Your task to perform on an android device: Open the calendar app, open the side menu, and click the "Day" option Image 0: 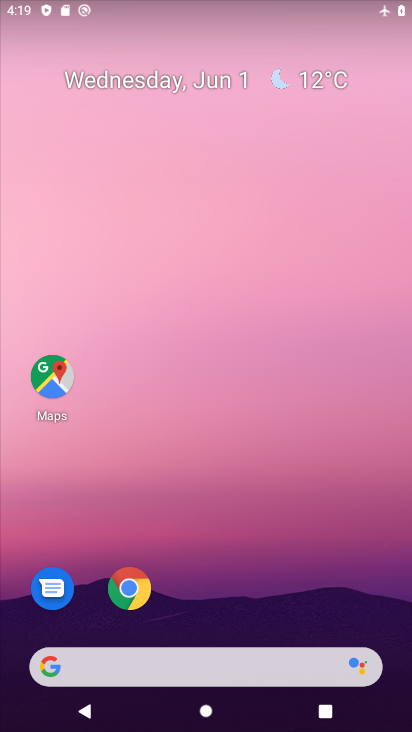
Step 0: drag from (237, 560) to (324, 39)
Your task to perform on an android device: Open the calendar app, open the side menu, and click the "Day" option Image 1: 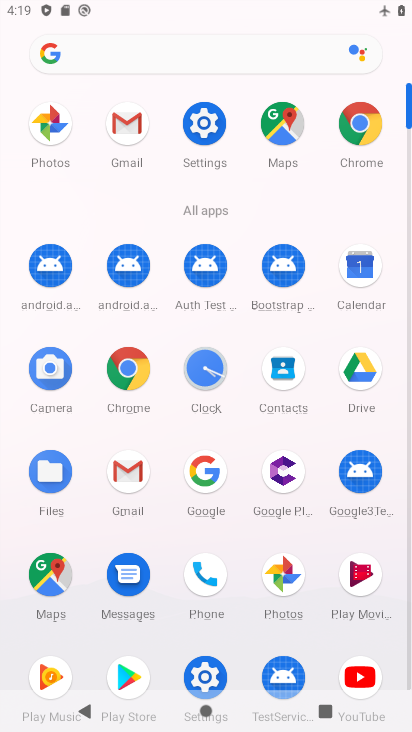
Step 1: click (365, 284)
Your task to perform on an android device: Open the calendar app, open the side menu, and click the "Day" option Image 2: 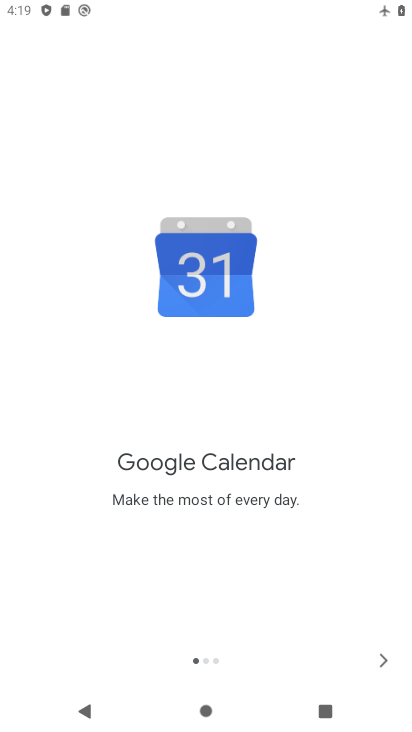
Step 2: click (372, 674)
Your task to perform on an android device: Open the calendar app, open the side menu, and click the "Day" option Image 3: 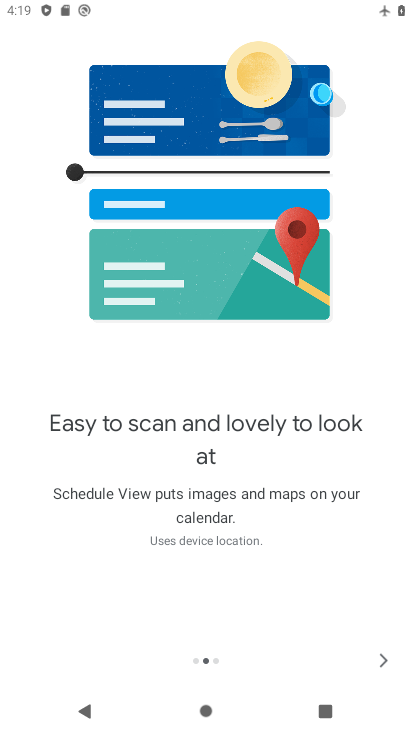
Step 3: click (372, 674)
Your task to perform on an android device: Open the calendar app, open the side menu, and click the "Day" option Image 4: 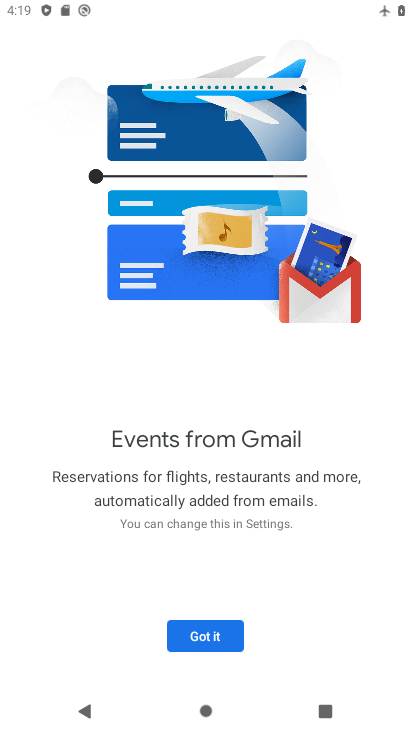
Step 4: click (222, 638)
Your task to perform on an android device: Open the calendar app, open the side menu, and click the "Day" option Image 5: 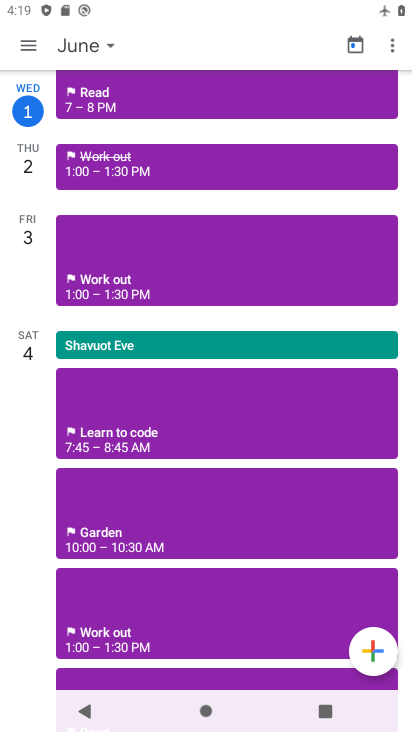
Step 5: click (45, 52)
Your task to perform on an android device: Open the calendar app, open the side menu, and click the "Day" option Image 6: 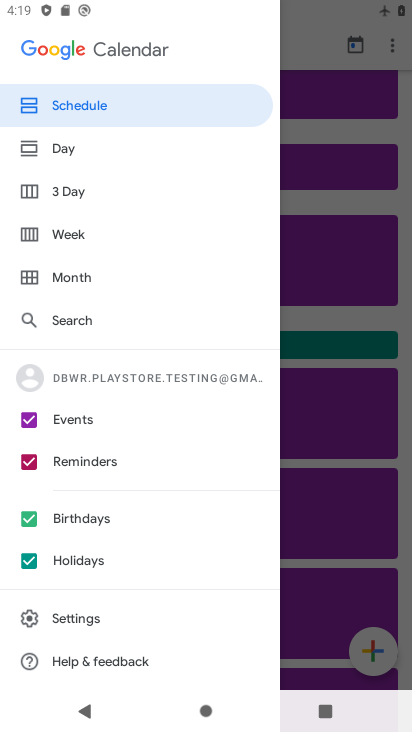
Step 6: click (82, 152)
Your task to perform on an android device: Open the calendar app, open the side menu, and click the "Day" option Image 7: 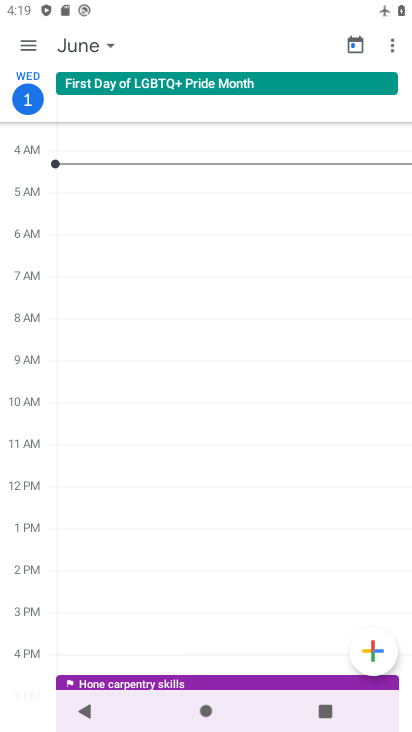
Step 7: task complete